Your task to perform on an android device: check data usage Image 0: 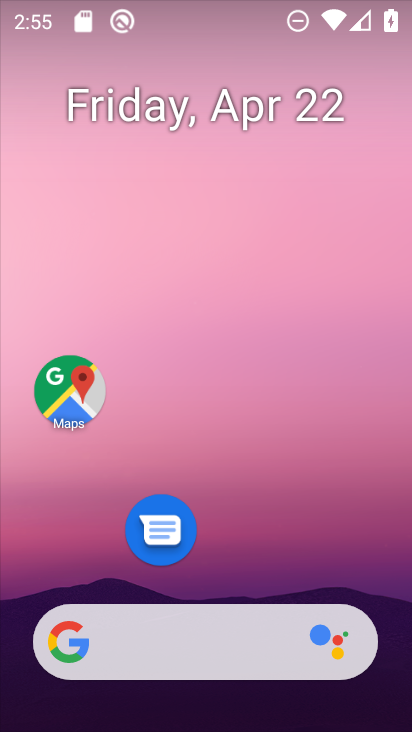
Step 0: drag from (287, 540) to (249, 29)
Your task to perform on an android device: check data usage Image 1: 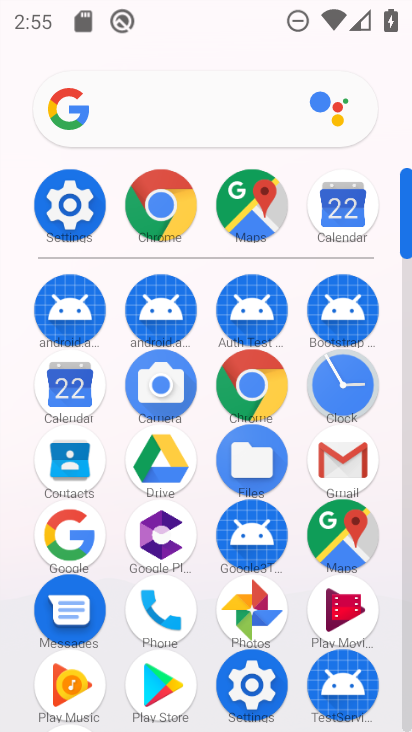
Step 1: click (65, 208)
Your task to perform on an android device: check data usage Image 2: 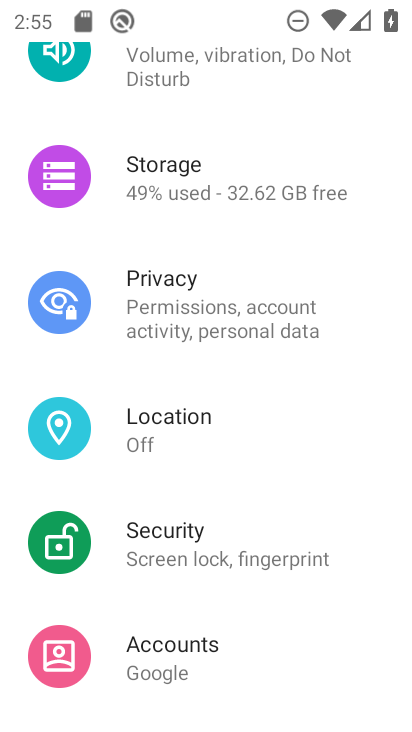
Step 2: drag from (215, 137) to (237, 597)
Your task to perform on an android device: check data usage Image 3: 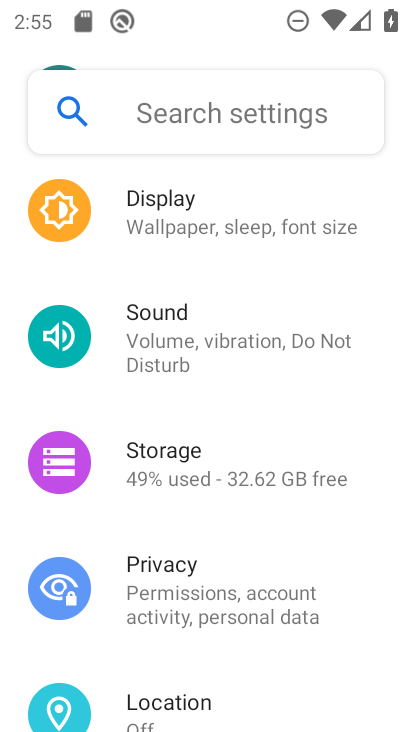
Step 3: drag from (216, 257) to (215, 681)
Your task to perform on an android device: check data usage Image 4: 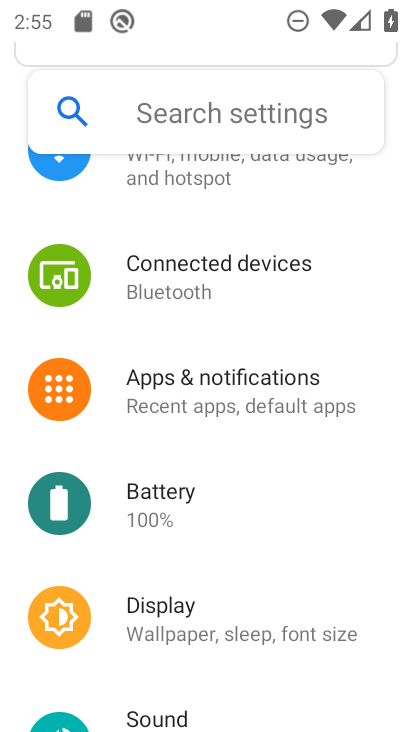
Step 4: drag from (182, 220) to (205, 700)
Your task to perform on an android device: check data usage Image 5: 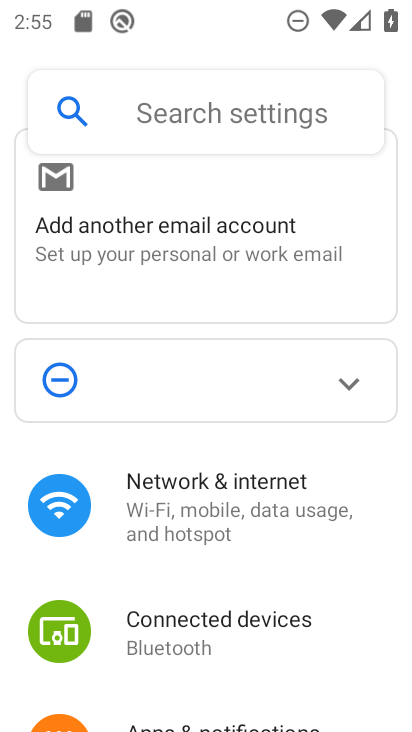
Step 5: click (216, 482)
Your task to perform on an android device: check data usage Image 6: 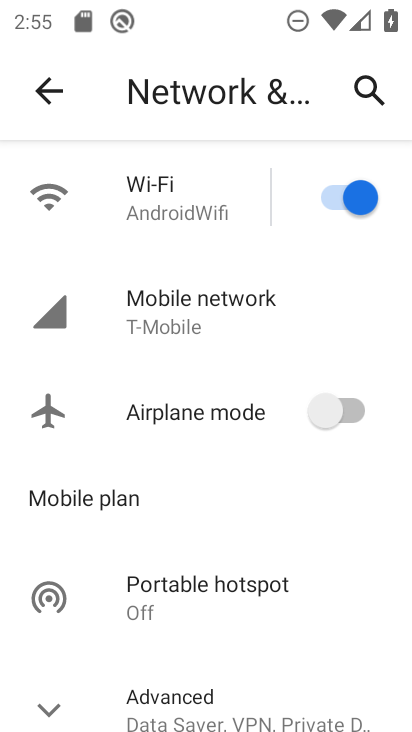
Step 6: click (189, 305)
Your task to perform on an android device: check data usage Image 7: 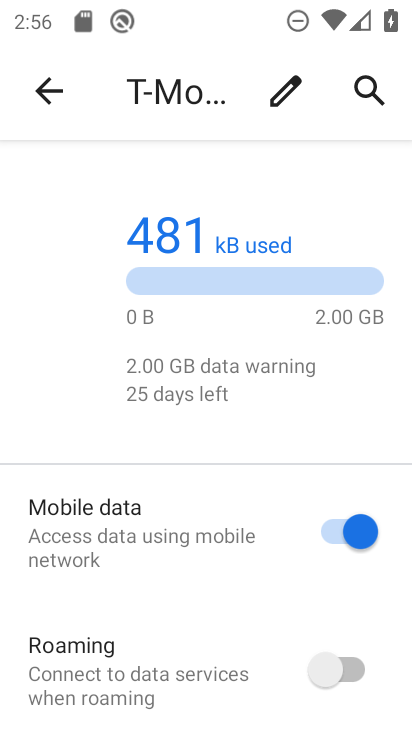
Step 7: task complete